Your task to perform on an android device: see sites visited before in the chrome app Image 0: 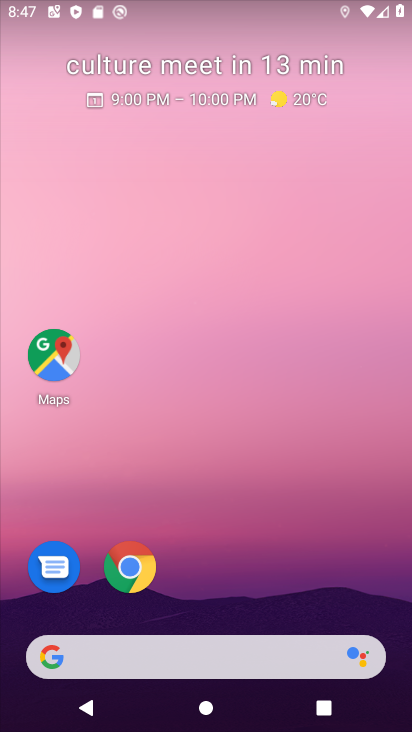
Step 0: drag from (225, 255) to (266, 5)
Your task to perform on an android device: see sites visited before in the chrome app Image 1: 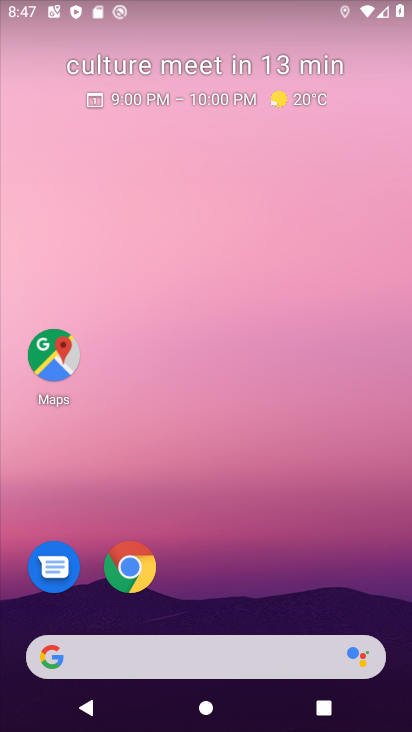
Step 1: click (131, 571)
Your task to perform on an android device: see sites visited before in the chrome app Image 2: 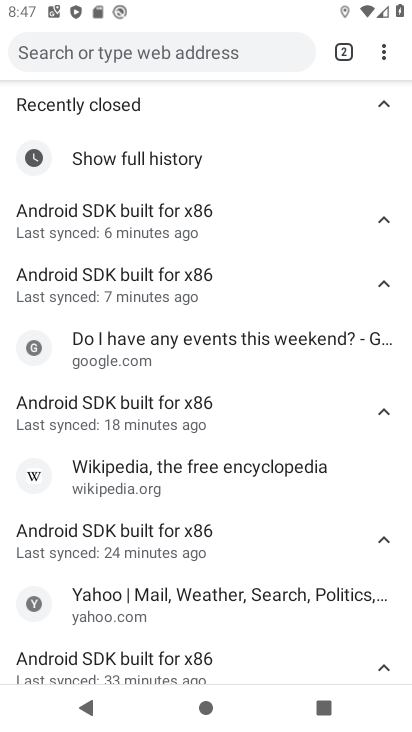
Step 2: click (396, 56)
Your task to perform on an android device: see sites visited before in the chrome app Image 3: 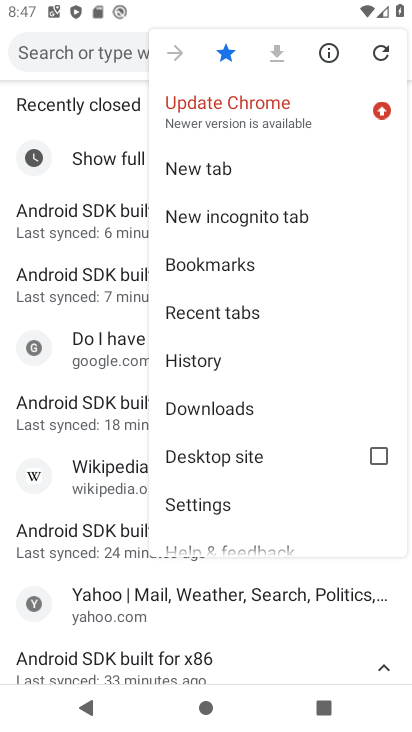
Step 3: drag from (247, 519) to (256, 185)
Your task to perform on an android device: see sites visited before in the chrome app Image 4: 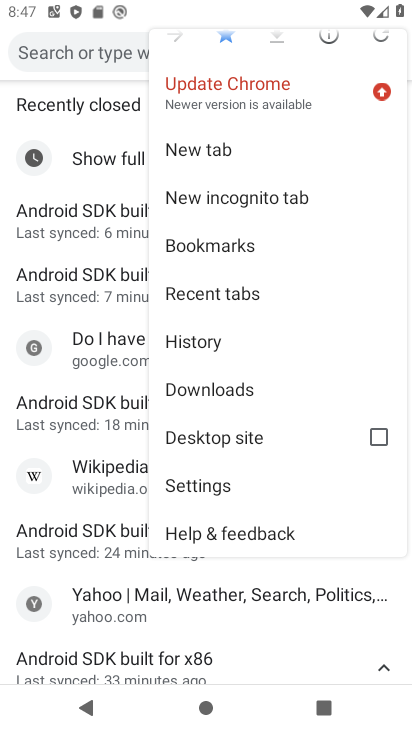
Step 4: click (199, 287)
Your task to perform on an android device: see sites visited before in the chrome app Image 5: 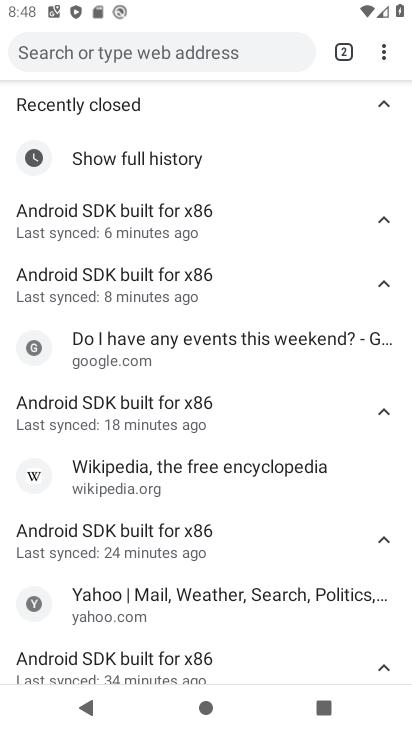
Step 5: task complete